Your task to perform on an android device: Search for seafood restaurants on Google Maps Image 0: 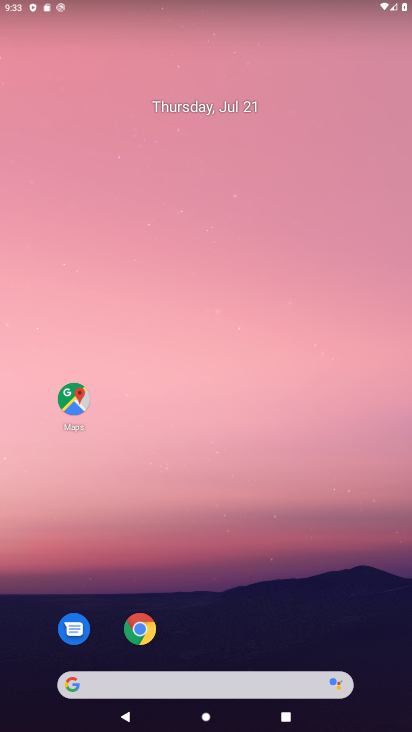
Step 0: click (85, 389)
Your task to perform on an android device: Search for seafood restaurants on Google Maps Image 1: 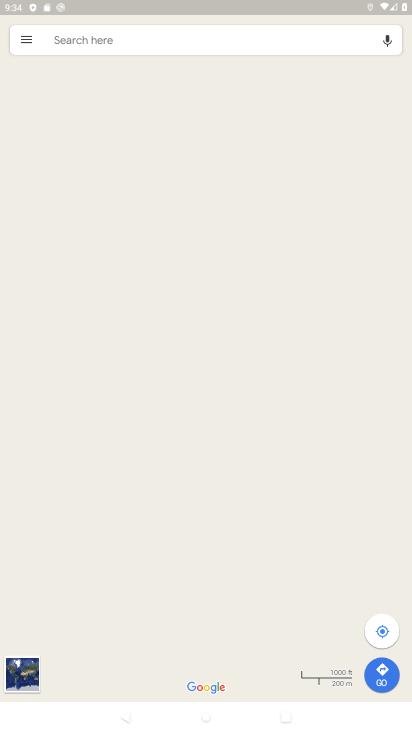
Step 1: click (291, 37)
Your task to perform on an android device: Search for seafood restaurants on Google Maps Image 2: 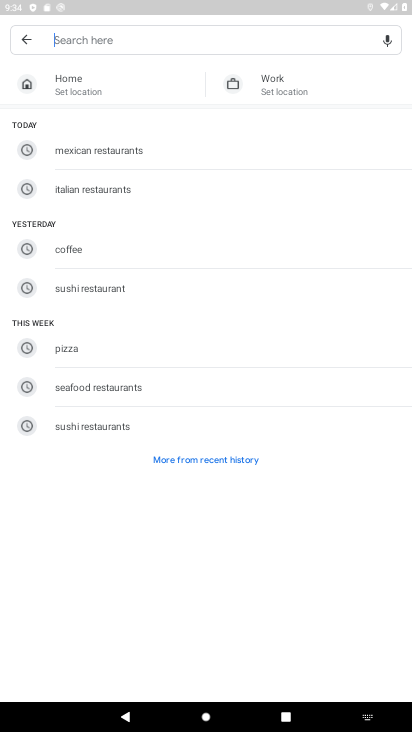
Step 2: type "se"
Your task to perform on an android device: Search for seafood restaurants on Google Maps Image 3: 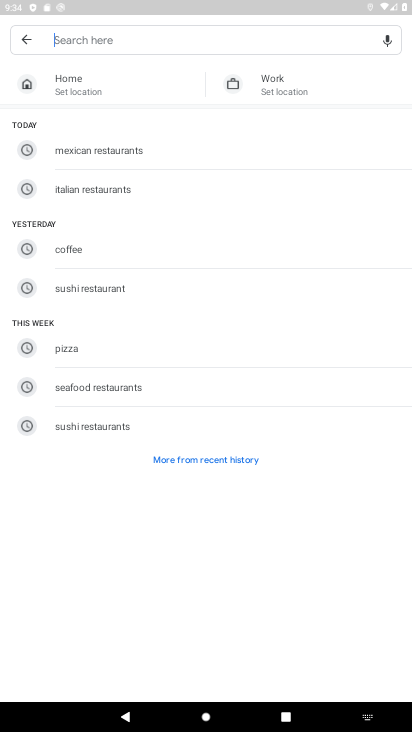
Step 3: click (341, 400)
Your task to perform on an android device: Search for seafood restaurants on Google Maps Image 4: 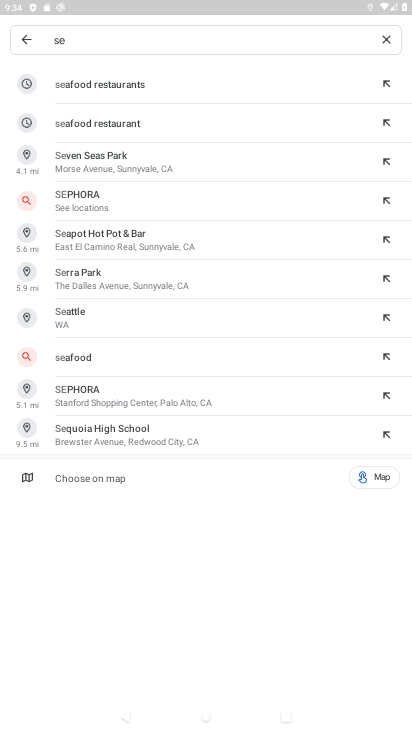
Step 4: click (146, 76)
Your task to perform on an android device: Search for seafood restaurants on Google Maps Image 5: 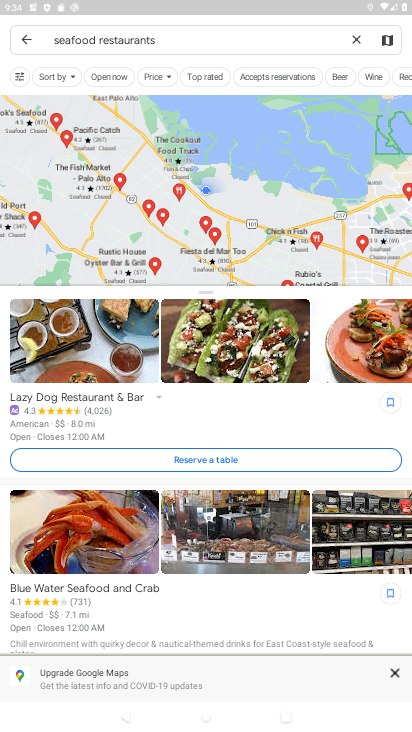
Step 5: task complete